Your task to perform on an android device: Show me productivity apps on the Play Store Image 0: 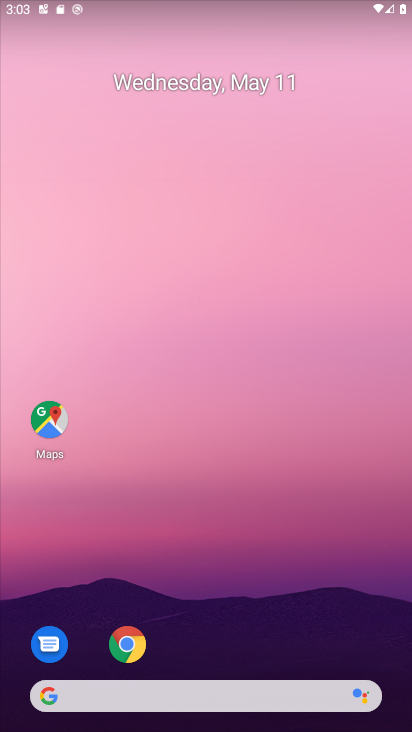
Step 0: drag from (244, 654) to (141, 0)
Your task to perform on an android device: Show me productivity apps on the Play Store Image 1: 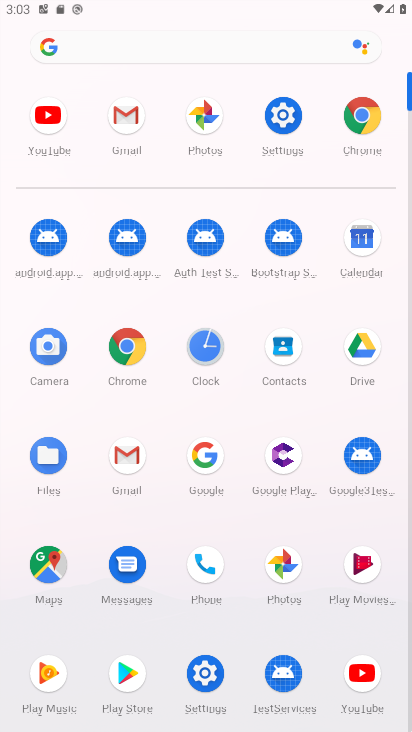
Step 1: click (113, 667)
Your task to perform on an android device: Show me productivity apps on the Play Store Image 2: 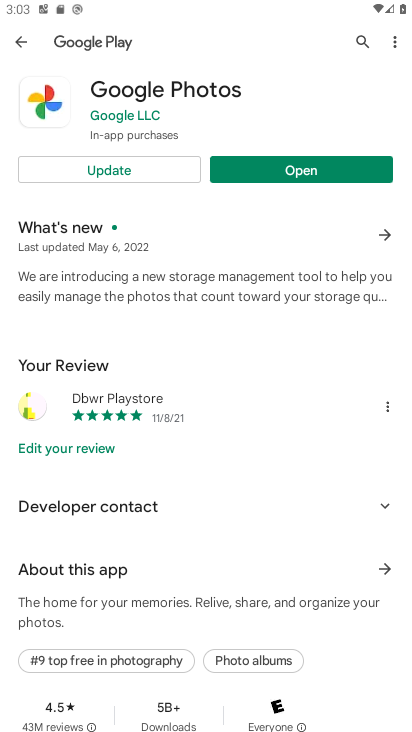
Step 2: click (22, 38)
Your task to perform on an android device: Show me productivity apps on the Play Store Image 3: 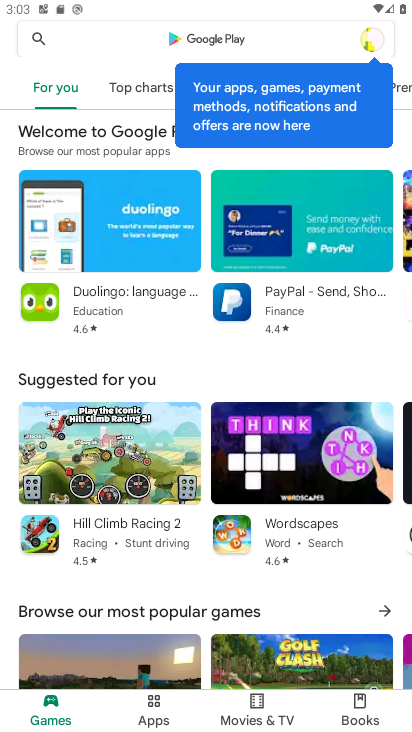
Step 3: click (162, 698)
Your task to perform on an android device: Show me productivity apps on the Play Store Image 4: 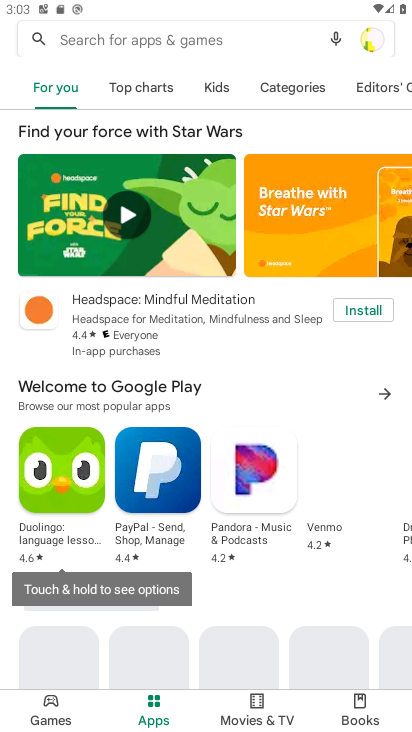
Step 4: click (296, 82)
Your task to perform on an android device: Show me productivity apps on the Play Store Image 5: 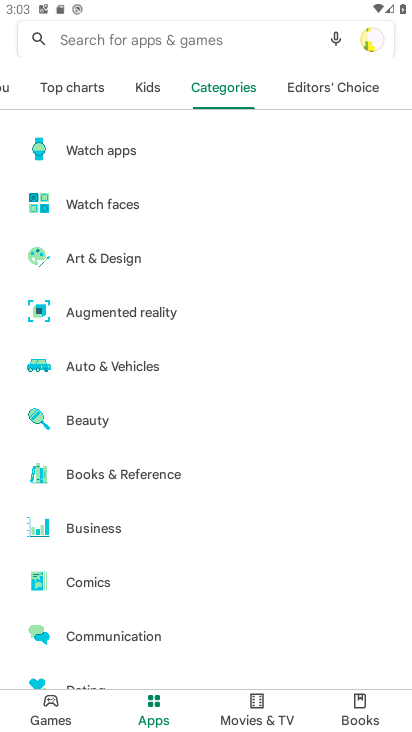
Step 5: drag from (230, 507) to (147, 10)
Your task to perform on an android device: Show me productivity apps on the Play Store Image 6: 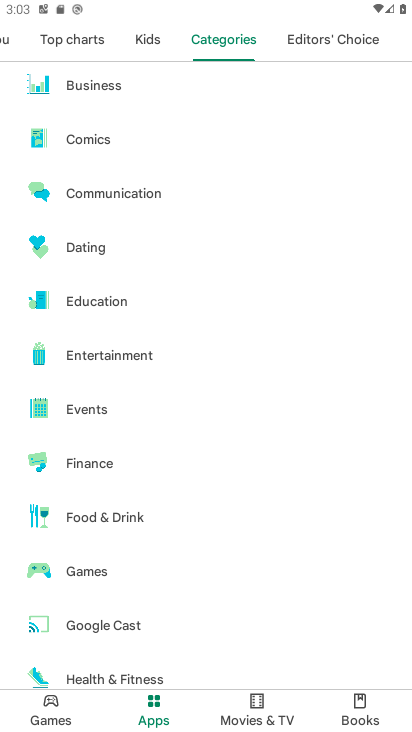
Step 6: drag from (107, 633) to (34, 12)
Your task to perform on an android device: Show me productivity apps on the Play Store Image 7: 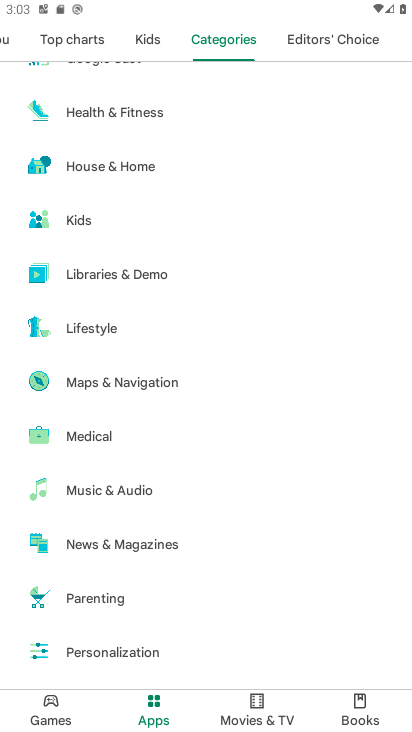
Step 7: drag from (102, 612) to (108, 306)
Your task to perform on an android device: Show me productivity apps on the Play Store Image 8: 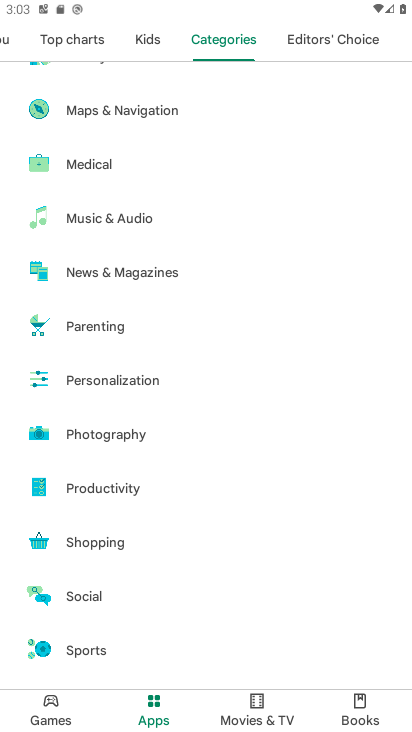
Step 8: click (116, 501)
Your task to perform on an android device: Show me productivity apps on the Play Store Image 9: 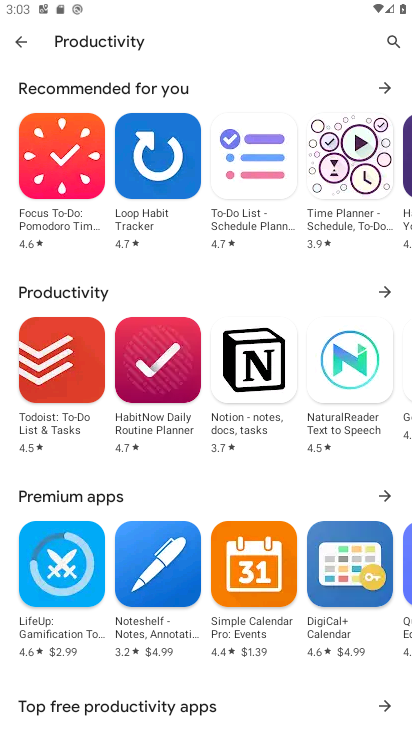
Step 9: task complete